Your task to perform on an android device: check google app version Image 0: 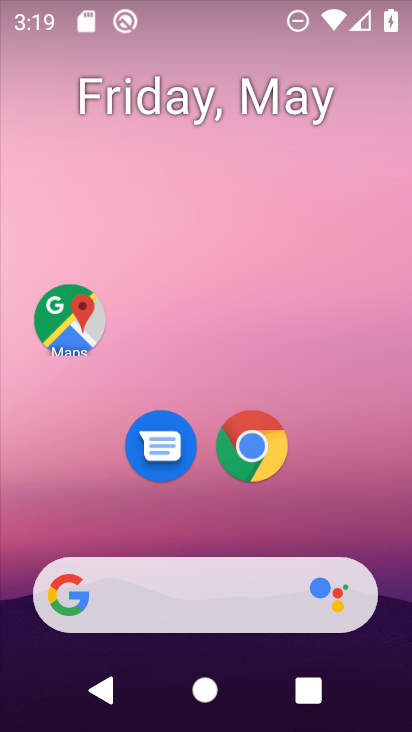
Step 0: drag from (308, 501) to (336, 72)
Your task to perform on an android device: check google app version Image 1: 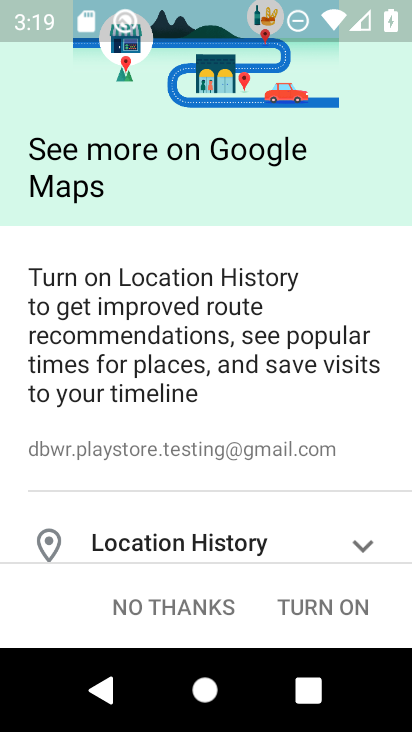
Step 1: press home button
Your task to perform on an android device: check google app version Image 2: 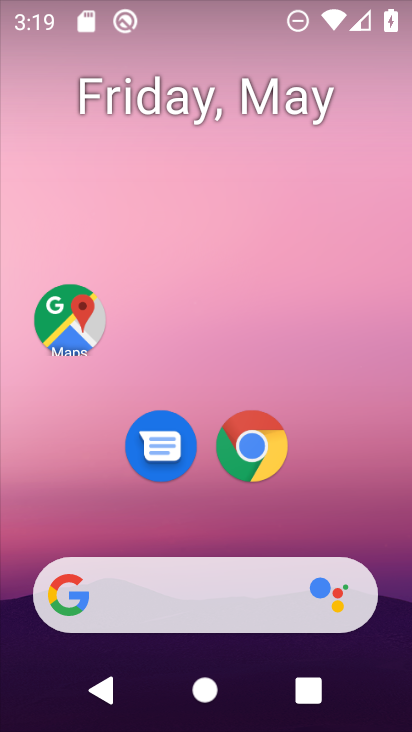
Step 2: drag from (336, 485) to (362, 78)
Your task to perform on an android device: check google app version Image 3: 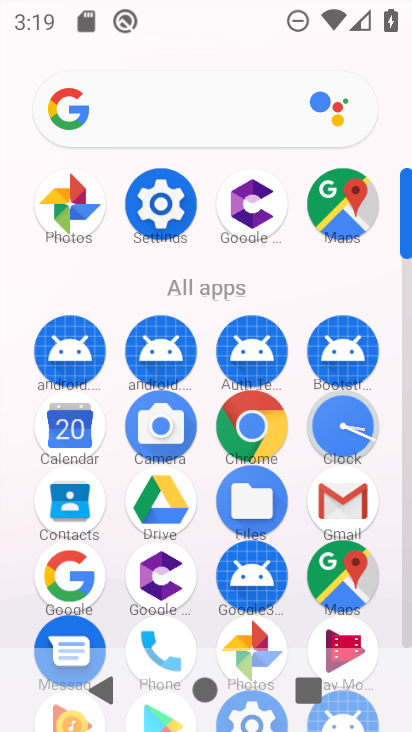
Step 3: drag from (295, 259) to (324, 42)
Your task to perform on an android device: check google app version Image 4: 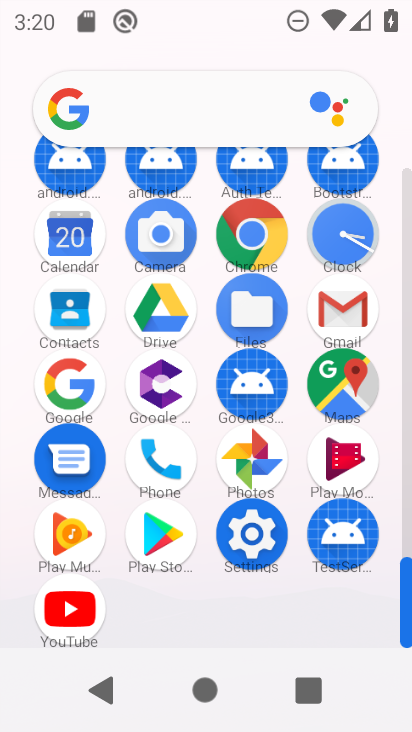
Step 4: click (82, 378)
Your task to perform on an android device: check google app version Image 5: 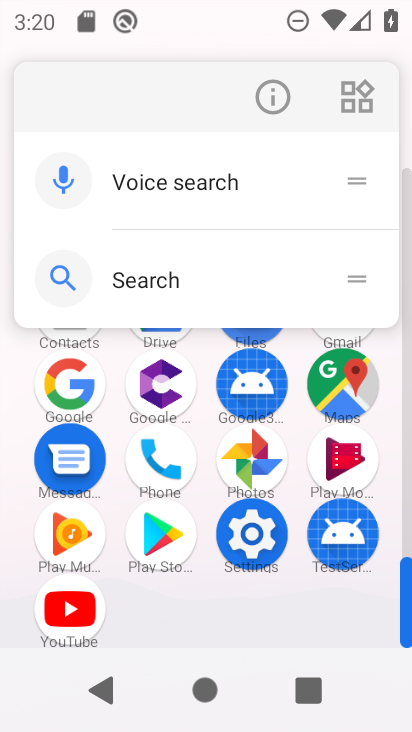
Step 5: click (270, 94)
Your task to perform on an android device: check google app version Image 6: 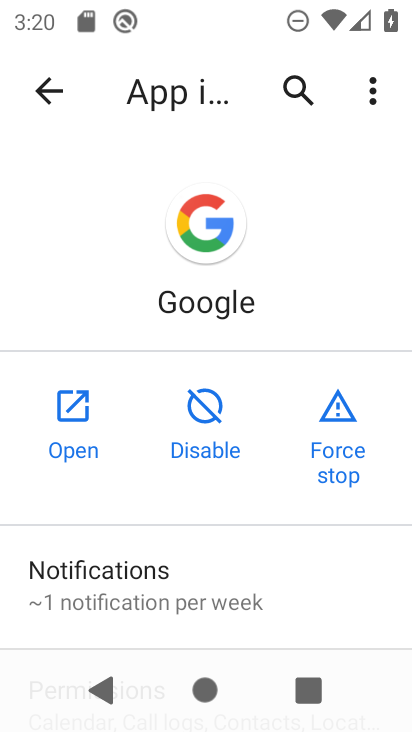
Step 6: drag from (262, 555) to (293, 277)
Your task to perform on an android device: check google app version Image 7: 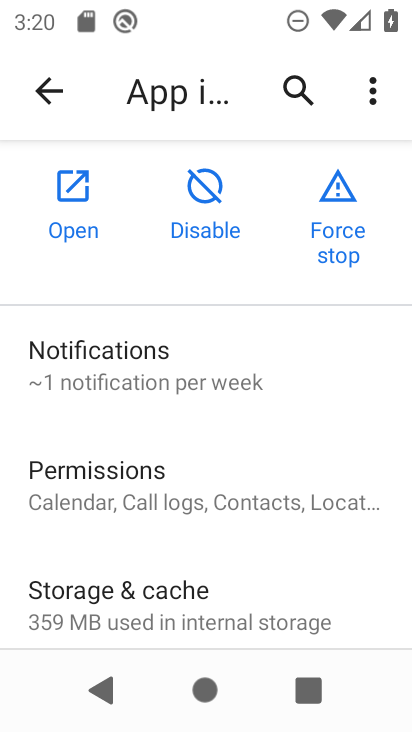
Step 7: drag from (310, 551) to (297, 219)
Your task to perform on an android device: check google app version Image 8: 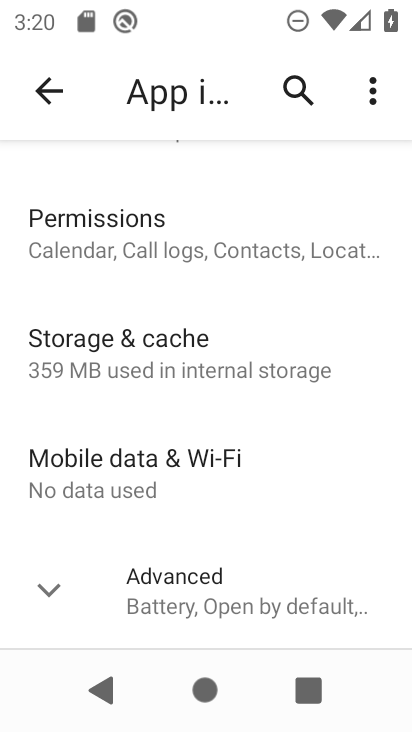
Step 8: click (190, 601)
Your task to perform on an android device: check google app version Image 9: 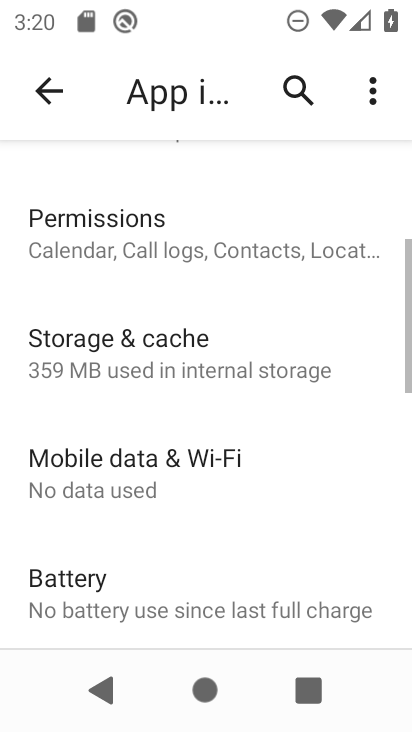
Step 9: task complete